Your task to perform on an android device: Open my contact list Image 0: 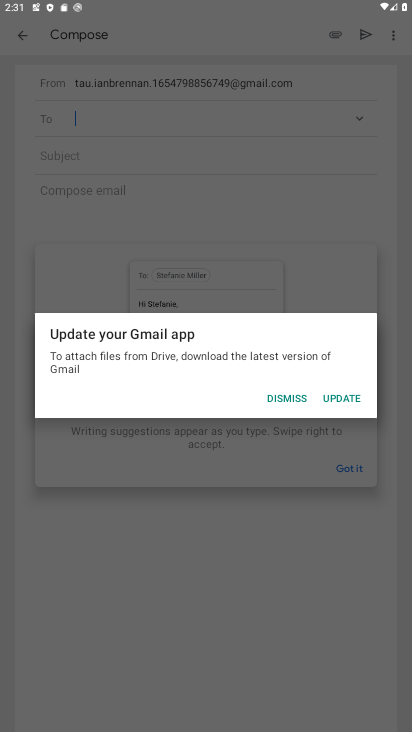
Step 0: press home button
Your task to perform on an android device: Open my contact list Image 1: 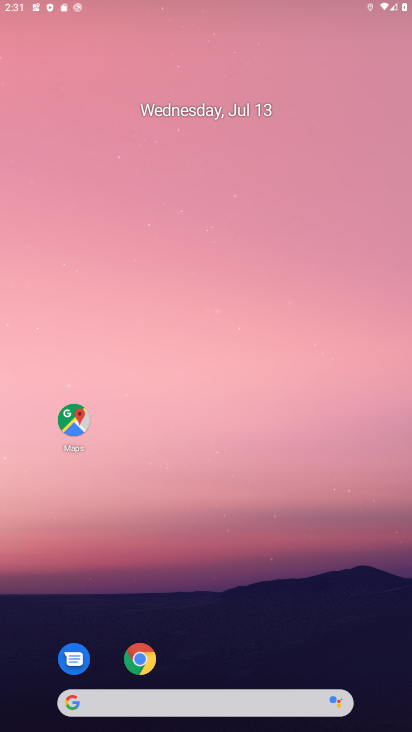
Step 1: drag from (190, 657) to (193, 175)
Your task to perform on an android device: Open my contact list Image 2: 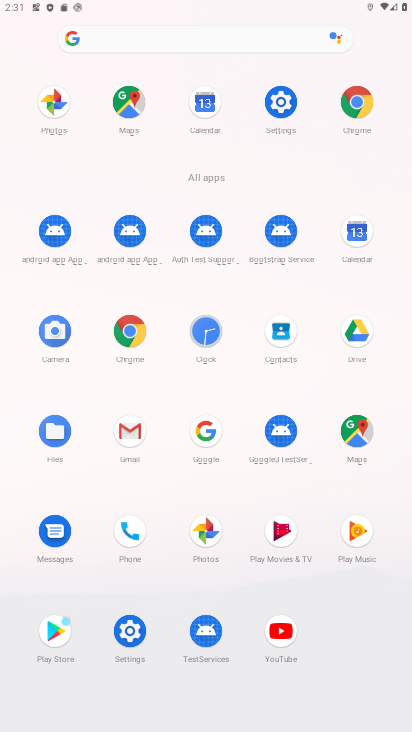
Step 2: click (125, 517)
Your task to perform on an android device: Open my contact list Image 3: 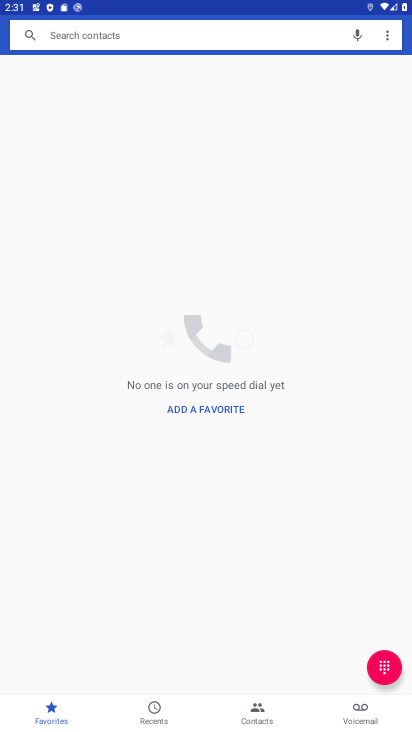
Step 3: click (259, 689)
Your task to perform on an android device: Open my contact list Image 4: 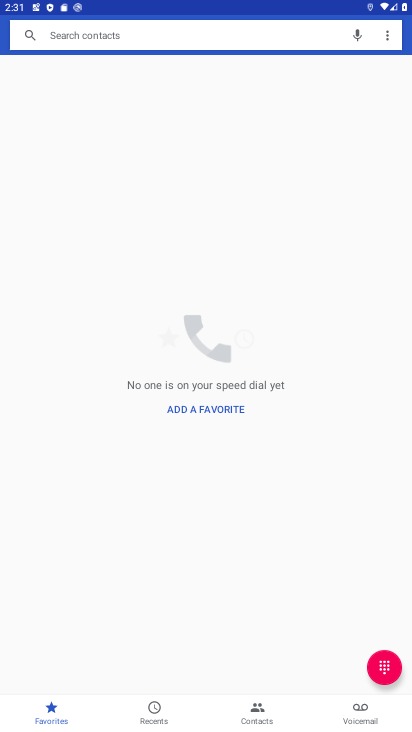
Step 4: click (259, 725)
Your task to perform on an android device: Open my contact list Image 5: 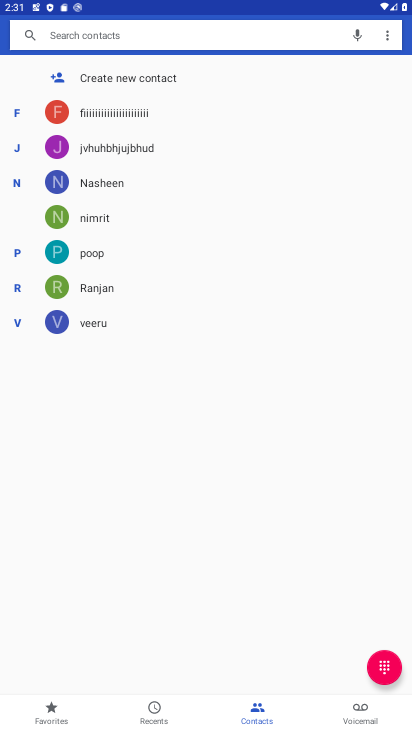
Step 5: task complete